Your task to perform on an android device: Go to network settings Image 0: 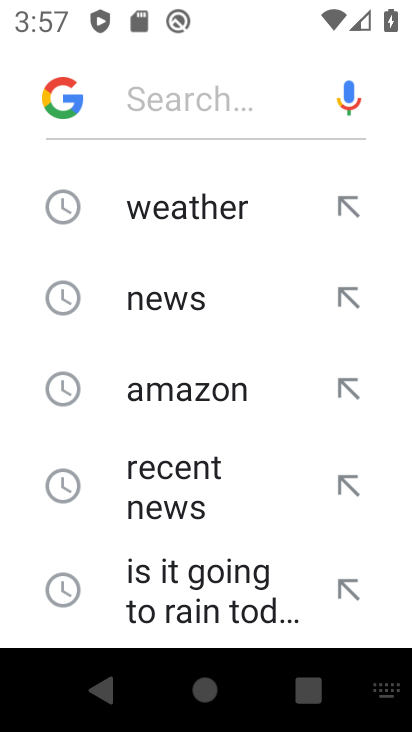
Step 0: press home button
Your task to perform on an android device: Go to network settings Image 1: 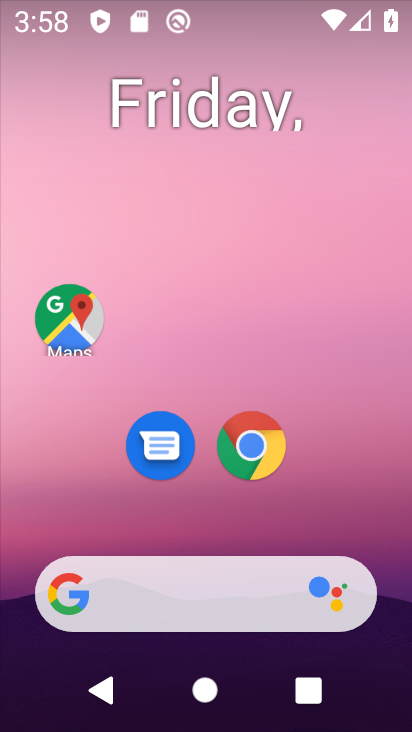
Step 1: drag from (306, 539) to (298, 126)
Your task to perform on an android device: Go to network settings Image 2: 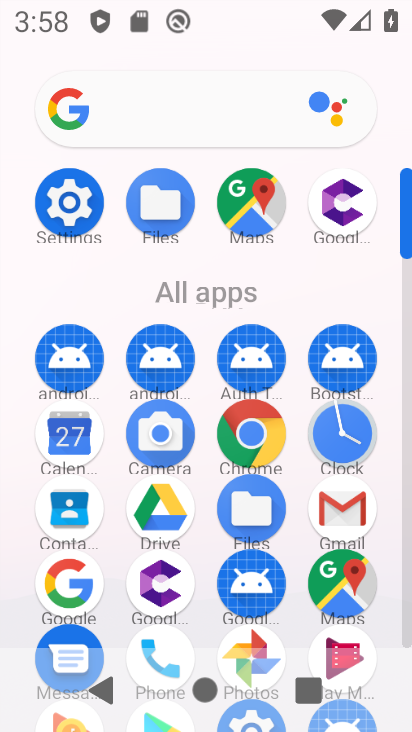
Step 2: click (59, 204)
Your task to perform on an android device: Go to network settings Image 3: 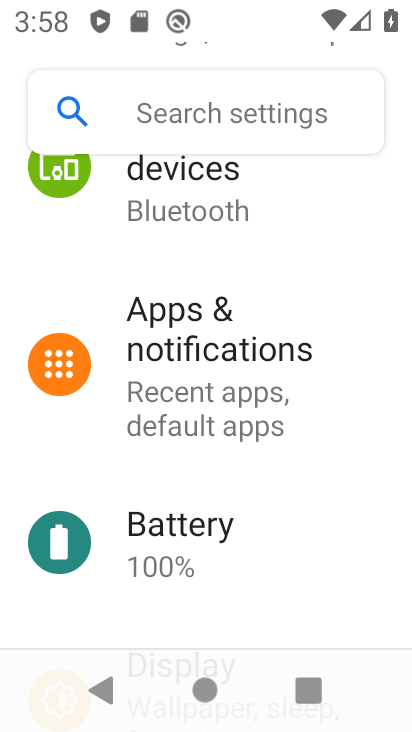
Step 3: drag from (312, 298) to (282, 670)
Your task to perform on an android device: Go to network settings Image 4: 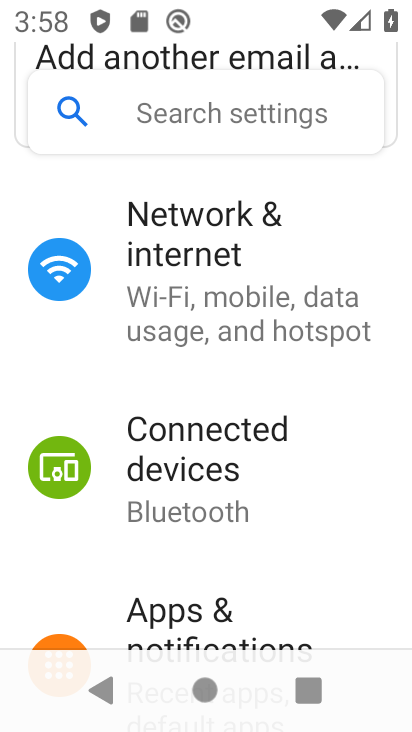
Step 4: click (214, 233)
Your task to perform on an android device: Go to network settings Image 5: 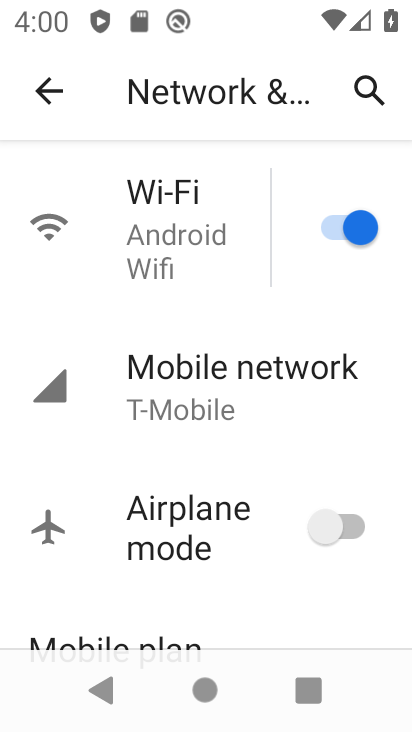
Step 5: task complete